Your task to perform on an android device: turn smart compose on in the gmail app Image 0: 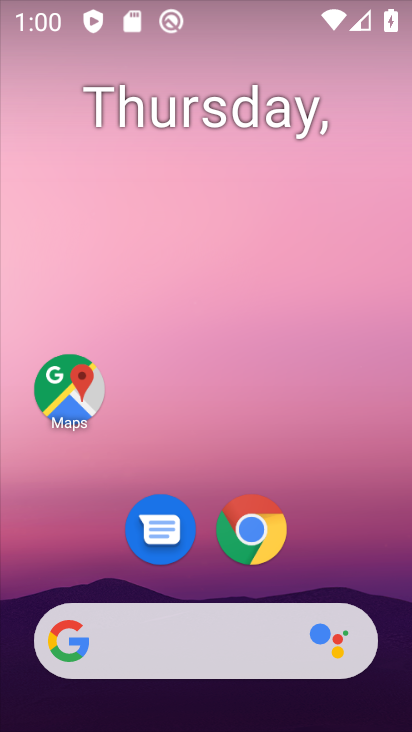
Step 0: drag from (338, 549) to (357, 166)
Your task to perform on an android device: turn smart compose on in the gmail app Image 1: 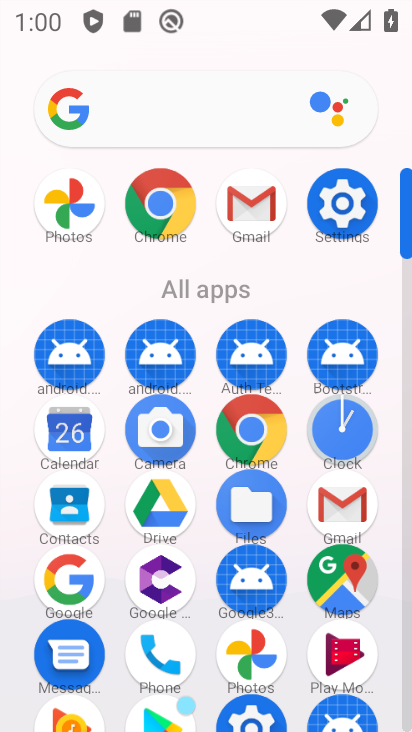
Step 1: click (347, 518)
Your task to perform on an android device: turn smart compose on in the gmail app Image 2: 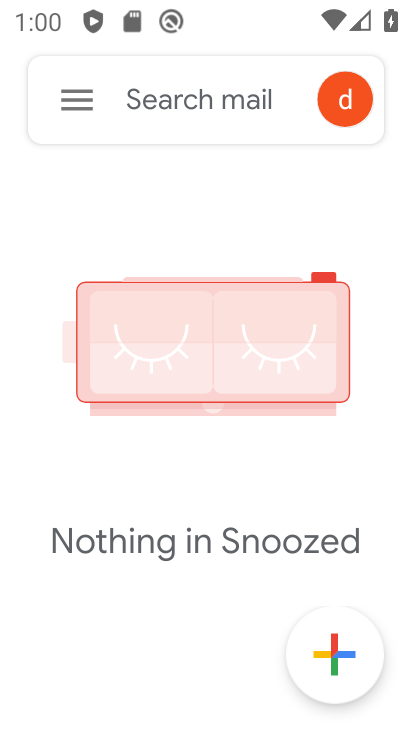
Step 2: click (56, 107)
Your task to perform on an android device: turn smart compose on in the gmail app Image 3: 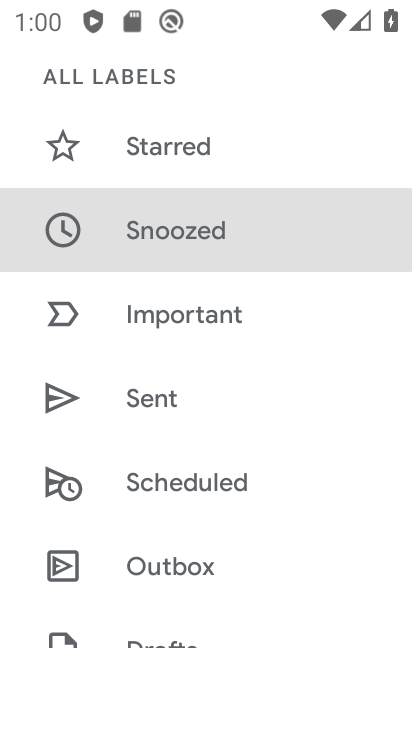
Step 3: drag from (275, 653) to (308, 335)
Your task to perform on an android device: turn smart compose on in the gmail app Image 4: 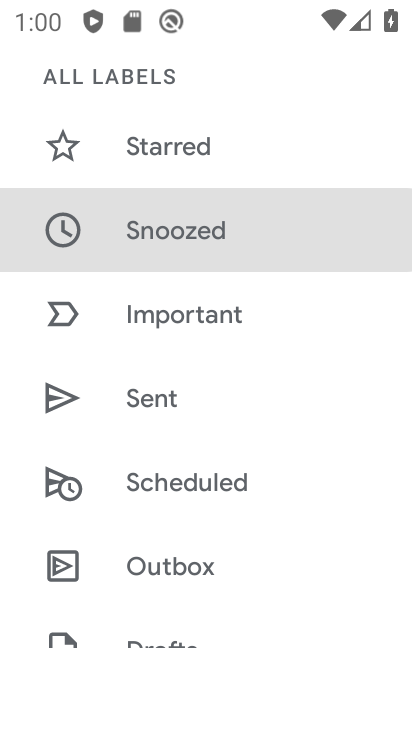
Step 4: drag from (285, 626) to (303, 323)
Your task to perform on an android device: turn smart compose on in the gmail app Image 5: 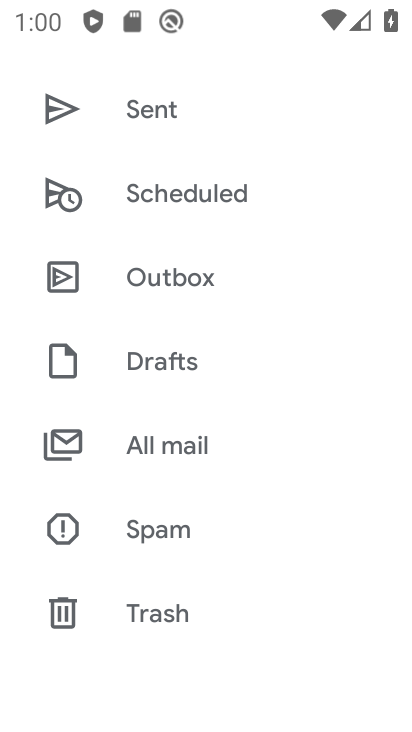
Step 5: drag from (296, 553) to (300, 335)
Your task to perform on an android device: turn smart compose on in the gmail app Image 6: 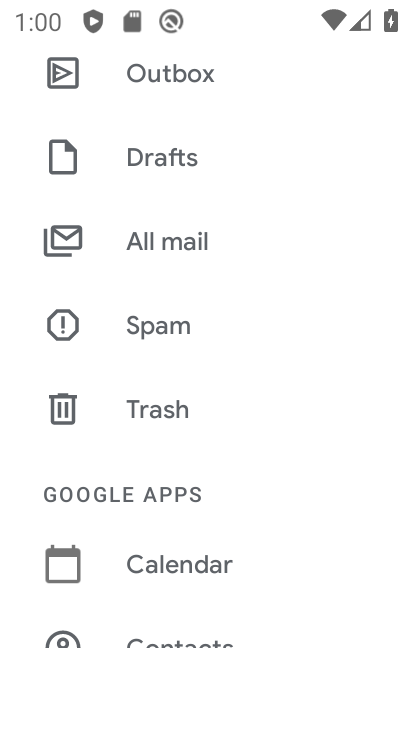
Step 6: drag from (266, 618) to (262, 317)
Your task to perform on an android device: turn smart compose on in the gmail app Image 7: 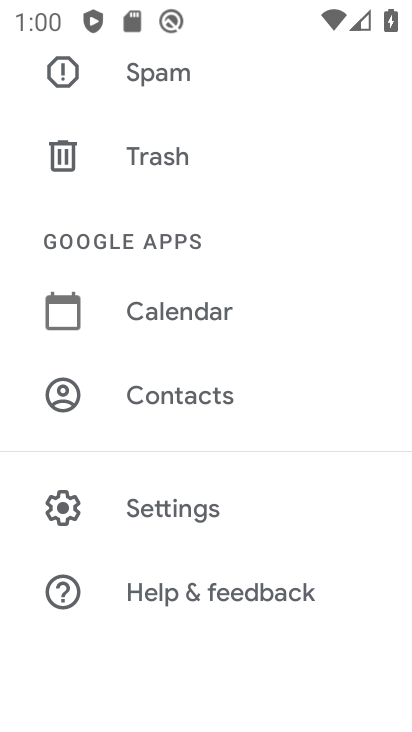
Step 7: click (227, 519)
Your task to perform on an android device: turn smart compose on in the gmail app Image 8: 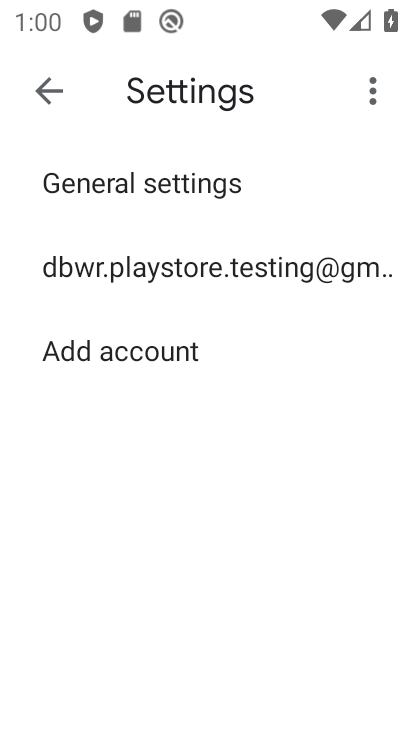
Step 8: click (173, 272)
Your task to perform on an android device: turn smart compose on in the gmail app Image 9: 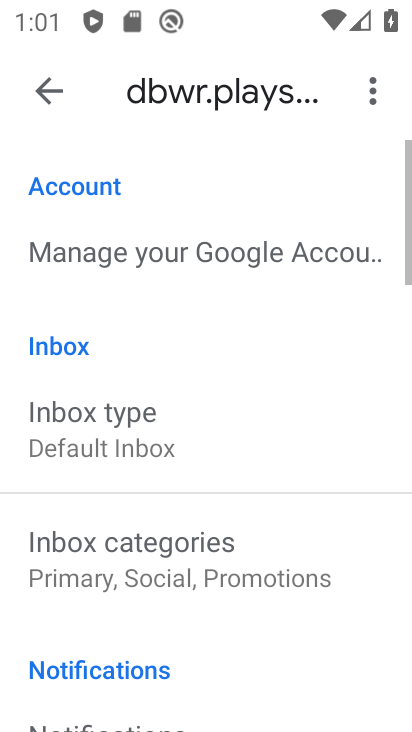
Step 9: task complete